Your task to perform on an android device: choose inbox layout in the gmail app Image 0: 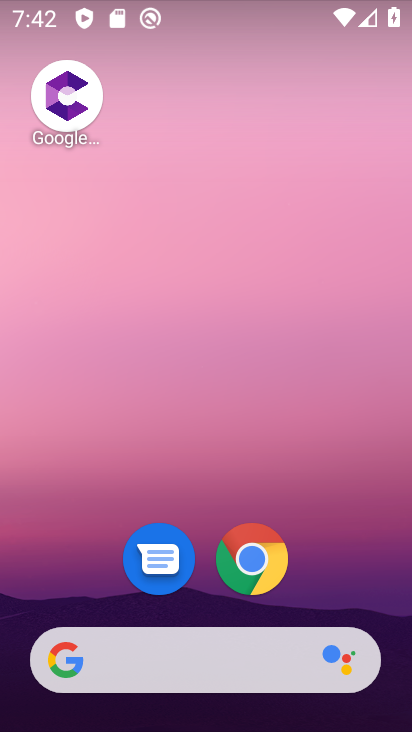
Step 0: click (246, 446)
Your task to perform on an android device: choose inbox layout in the gmail app Image 1: 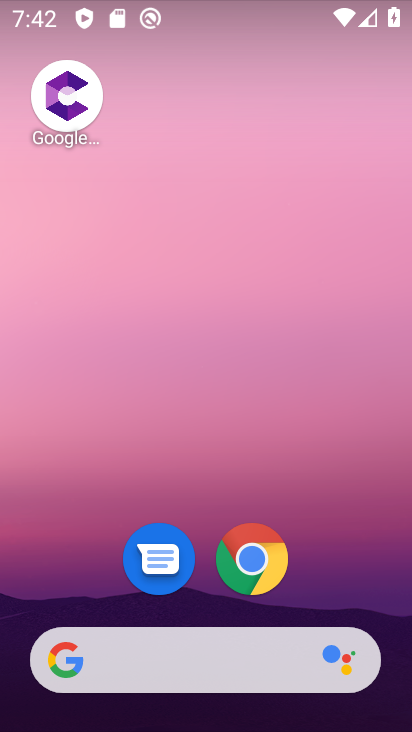
Step 1: drag from (335, 544) to (292, 353)
Your task to perform on an android device: choose inbox layout in the gmail app Image 2: 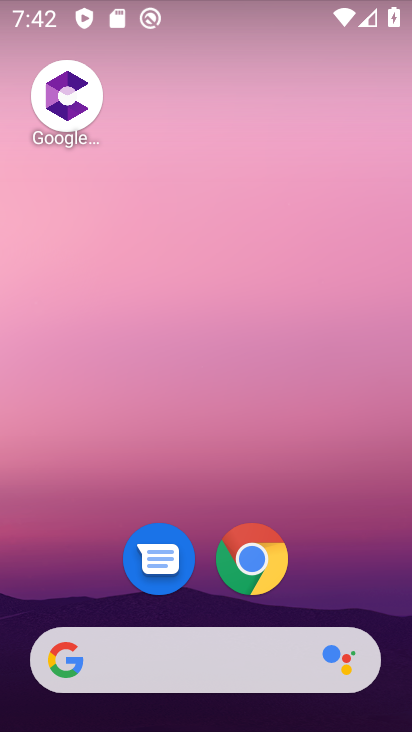
Step 2: drag from (305, 497) to (286, 288)
Your task to perform on an android device: choose inbox layout in the gmail app Image 3: 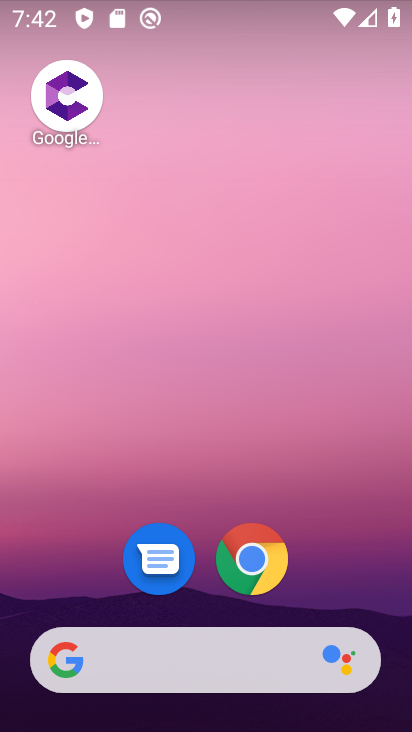
Step 3: drag from (375, 589) to (225, 58)
Your task to perform on an android device: choose inbox layout in the gmail app Image 4: 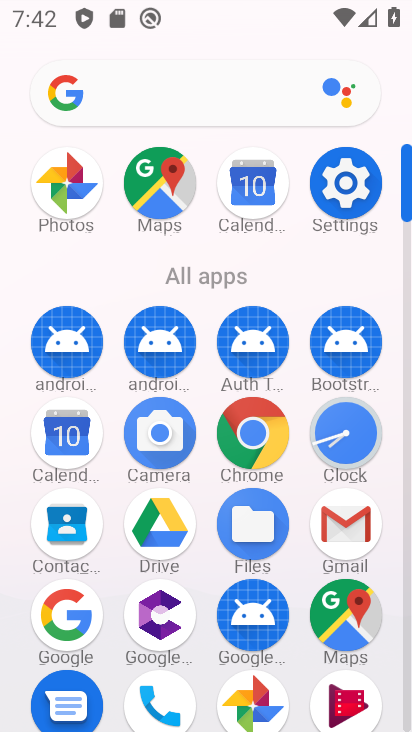
Step 4: click (345, 522)
Your task to perform on an android device: choose inbox layout in the gmail app Image 5: 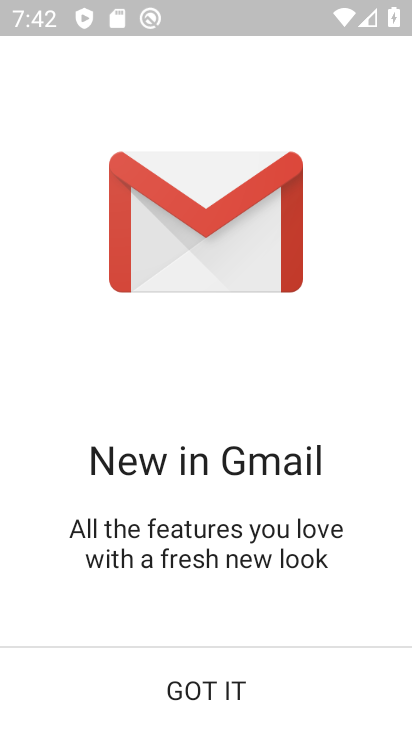
Step 5: click (206, 640)
Your task to perform on an android device: choose inbox layout in the gmail app Image 6: 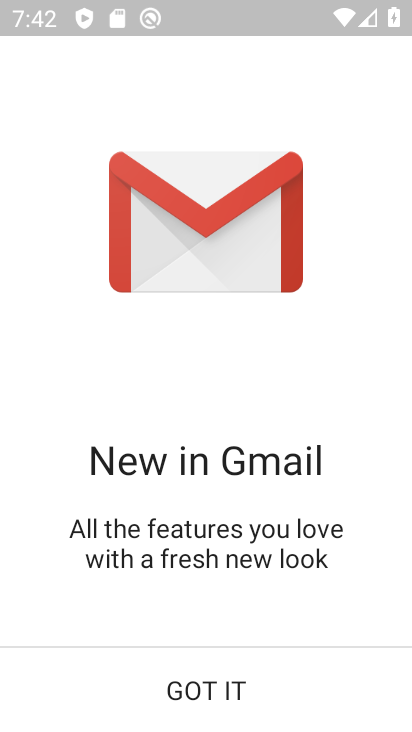
Step 6: click (208, 673)
Your task to perform on an android device: choose inbox layout in the gmail app Image 7: 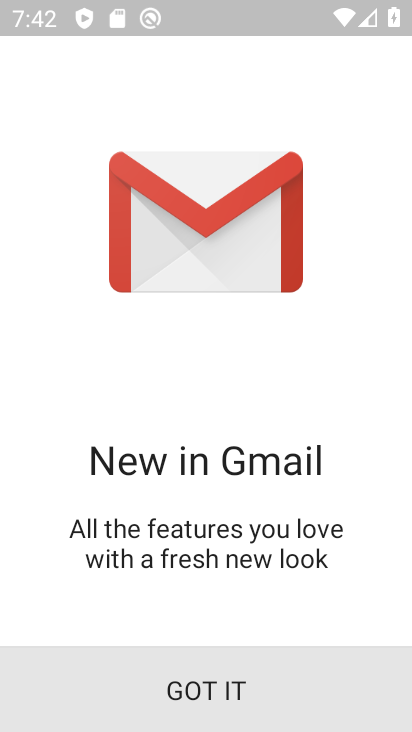
Step 7: click (210, 701)
Your task to perform on an android device: choose inbox layout in the gmail app Image 8: 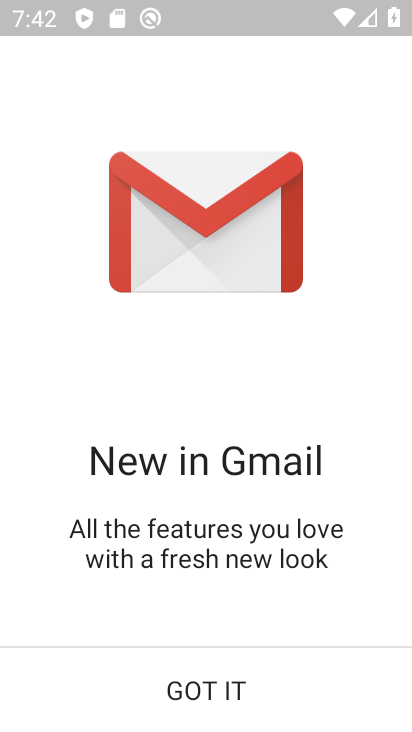
Step 8: click (210, 701)
Your task to perform on an android device: choose inbox layout in the gmail app Image 9: 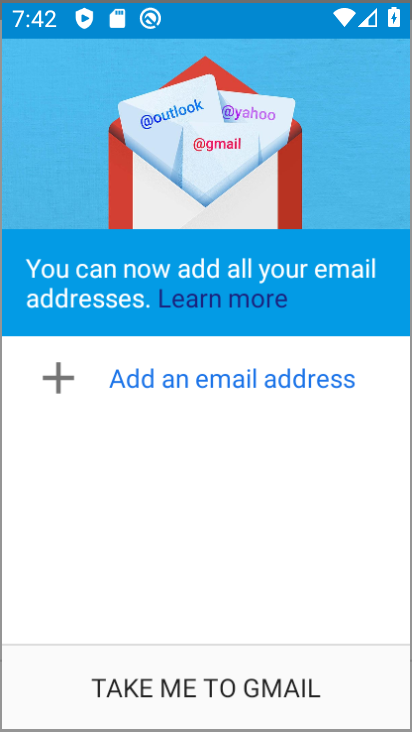
Step 9: click (211, 695)
Your task to perform on an android device: choose inbox layout in the gmail app Image 10: 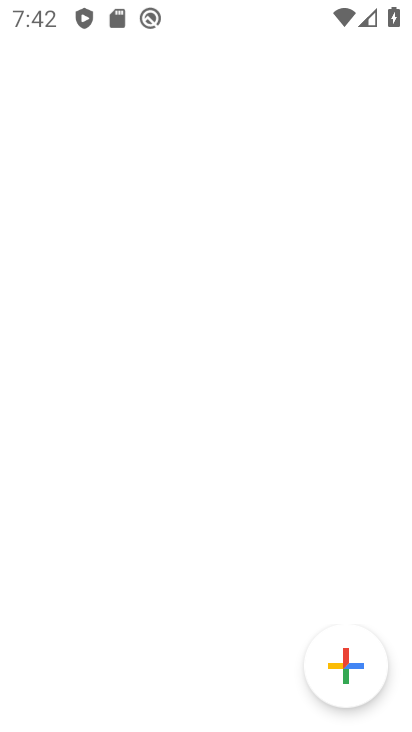
Step 10: click (190, 688)
Your task to perform on an android device: choose inbox layout in the gmail app Image 11: 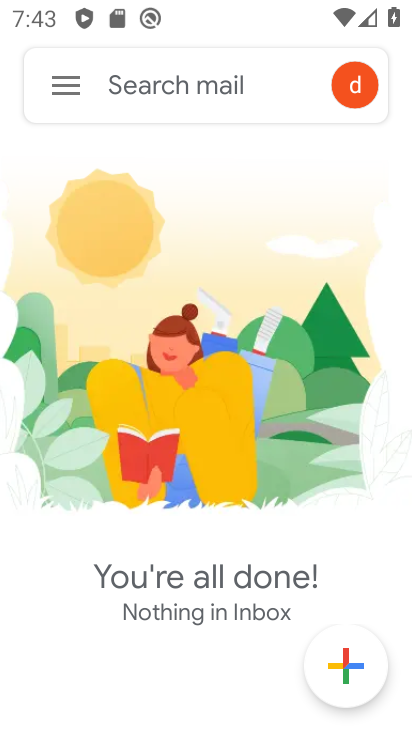
Step 11: click (66, 78)
Your task to perform on an android device: choose inbox layout in the gmail app Image 12: 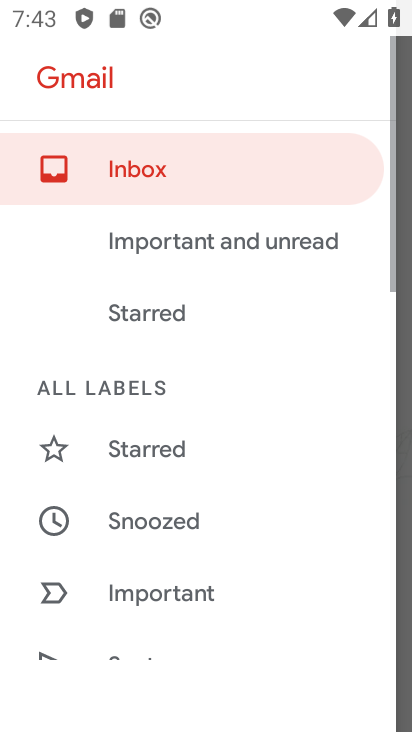
Step 12: drag from (170, 412) to (132, 108)
Your task to perform on an android device: choose inbox layout in the gmail app Image 13: 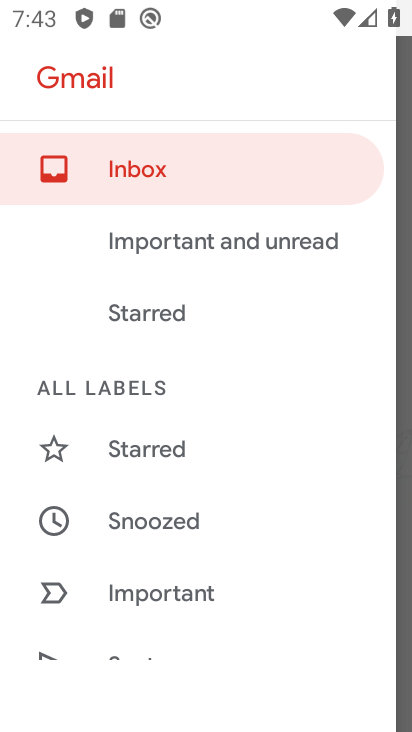
Step 13: drag from (225, 421) to (298, 109)
Your task to perform on an android device: choose inbox layout in the gmail app Image 14: 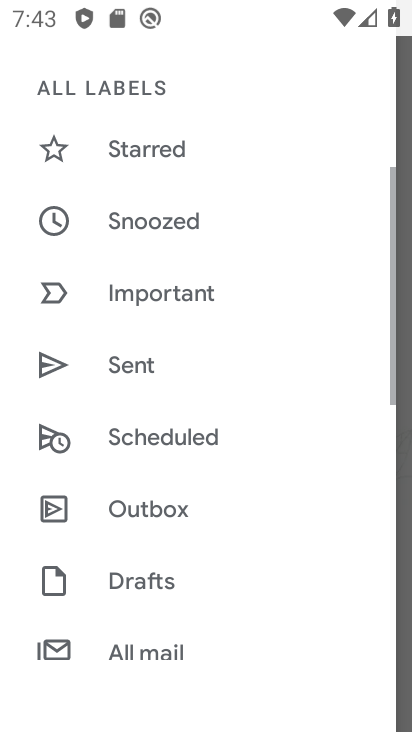
Step 14: drag from (355, 67) to (333, 15)
Your task to perform on an android device: choose inbox layout in the gmail app Image 15: 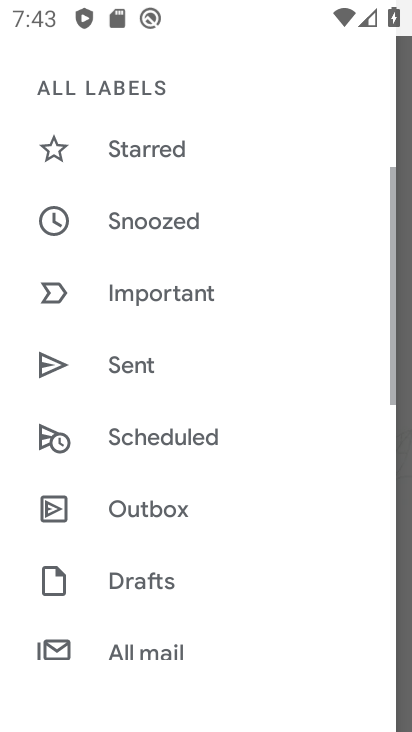
Step 15: drag from (222, 426) to (193, 62)
Your task to perform on an android device: choose inbox layout in the gmail app Image 16: 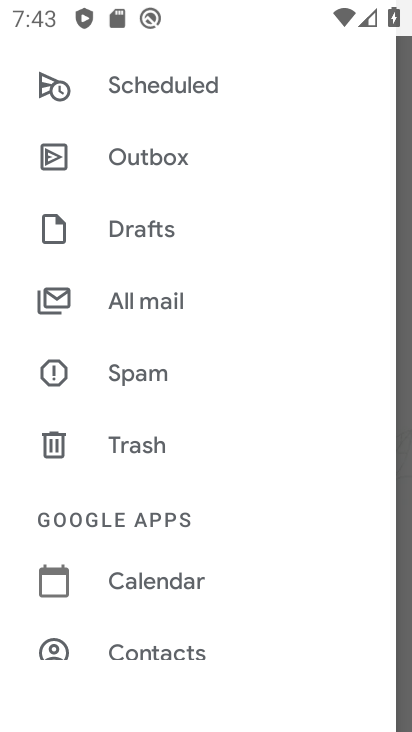
Step 16: click (141, 303)
Your task to perform on an android device: choose inbox layout in the gmail app Image 17: 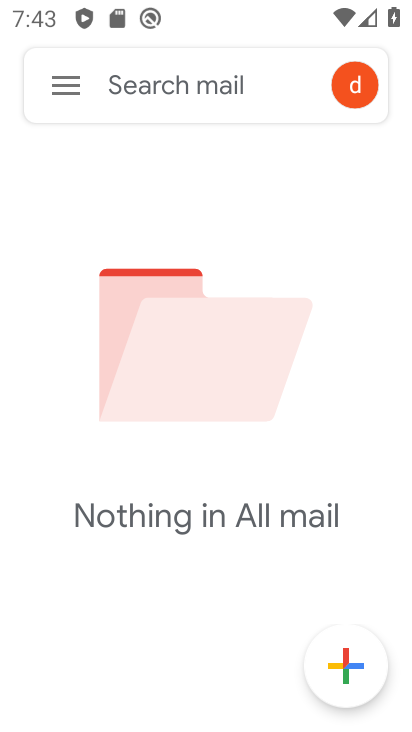
Step 17: task complete